Your task to perform on an android device: add a label to a message in the gmail app Image 0: 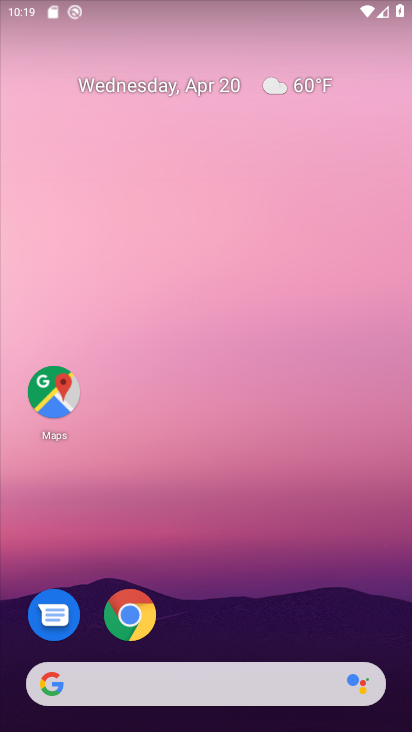
Step 0: drag from (370, 577) to (369, 123)
Your task to perform on an android device: add a label to a message in the gmail app Image 1: 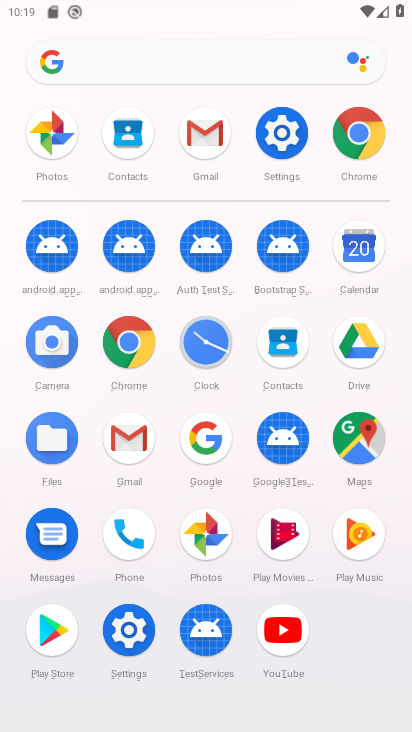
Step 1: click (139, 427)
Your task to perform on an android device: add a label to a message in the gmail app Image 2: 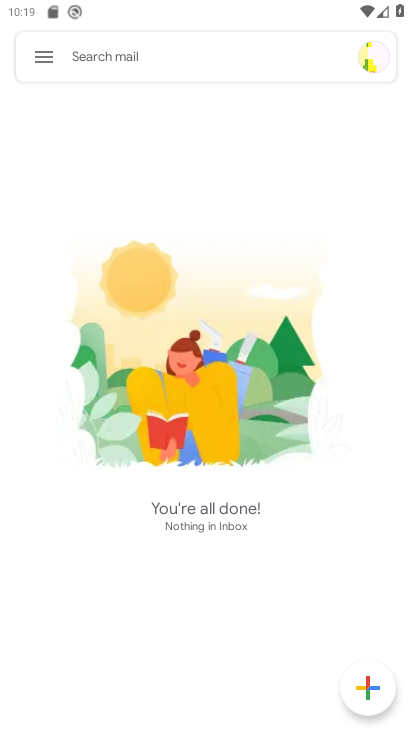
Step 2: click (41, 58)
Your task to perform on an android device: add a label to a message in the gmail app Image 3: 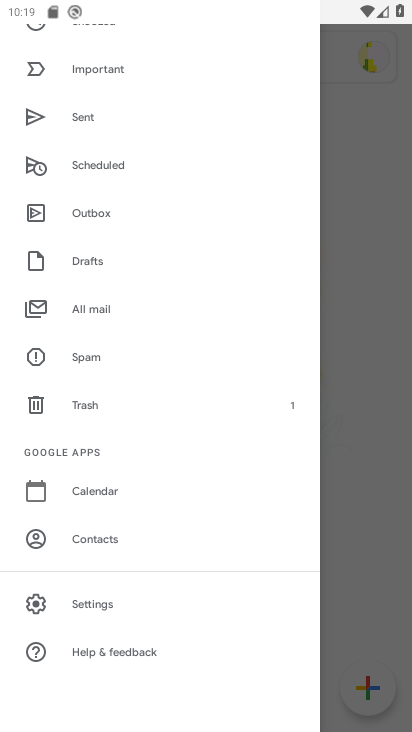
Step 3: click (114, 309)
Your task to perform on an android device: add a label to a message in the gmail app Image 4: 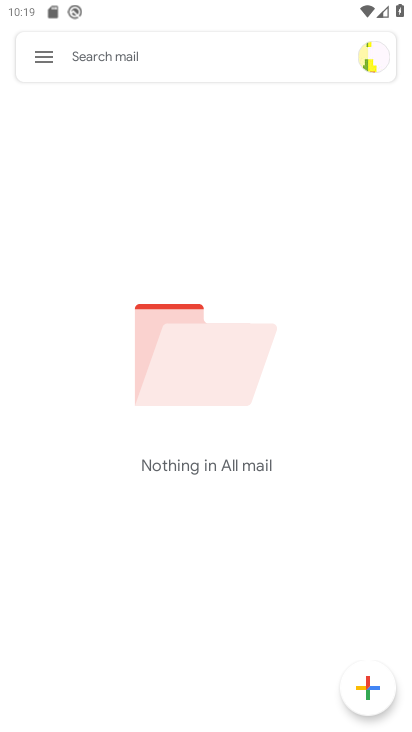
Step 4: task complete